Your task to perform on an android device: toggle javascript in the chrome app Image 0: 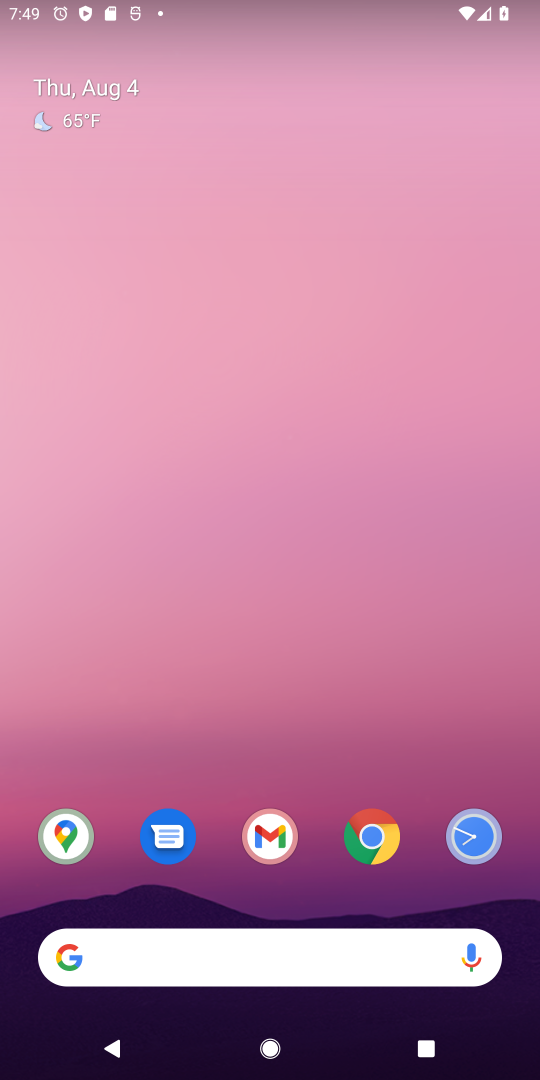
Step 0: click (380, 818)
Your task to perform on an android device: toggle javascript in the chrome app Image 1: 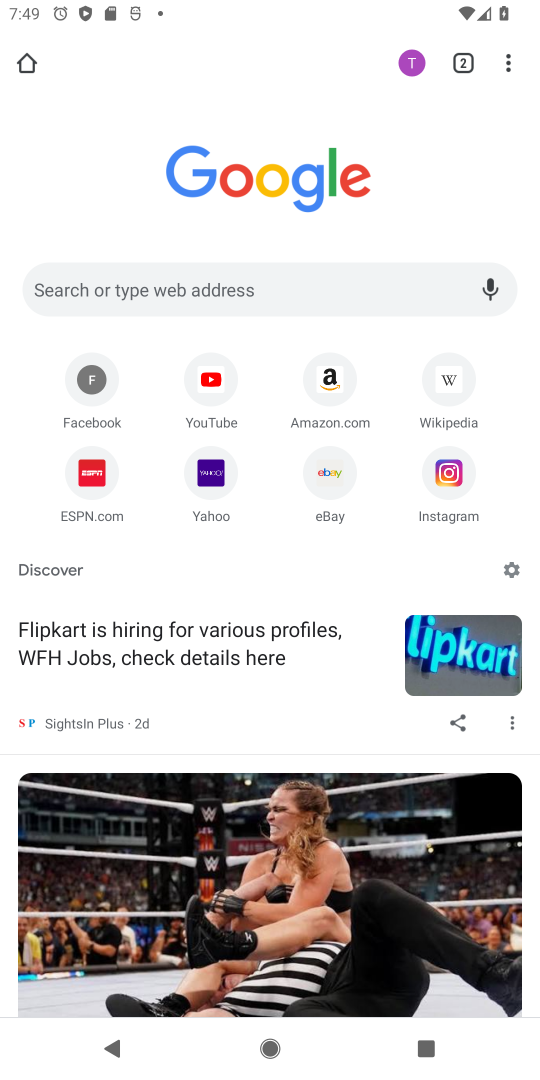
Step 1: drag from (511, 60) to (364, 599)
Your task to perform on an android device: toggle javascript in the chrome app Image 2: 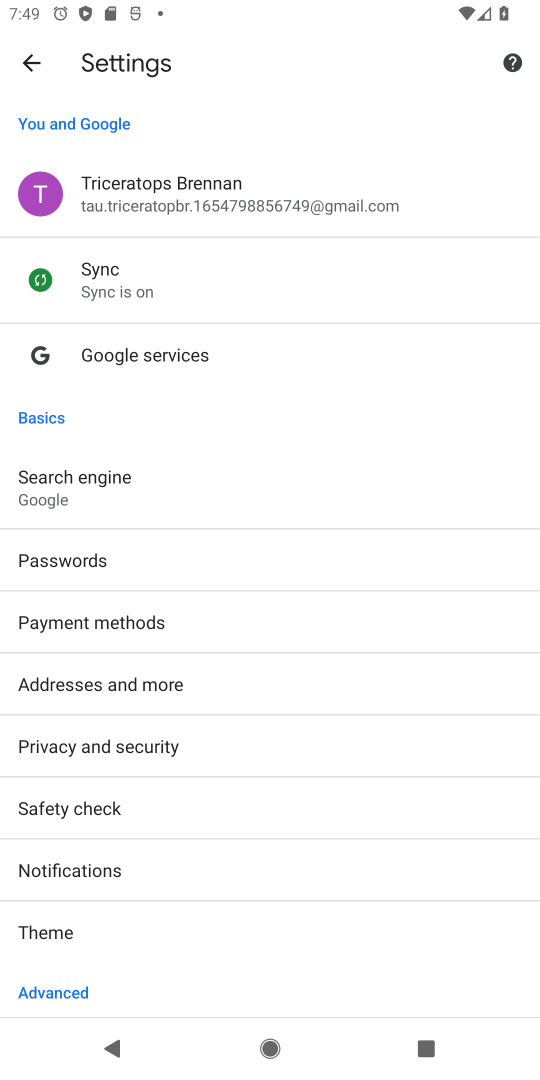
Step 2: drag from (251, 872) to (387, 149)
Your task to perform on an android device: toggle javascript in the chrome app Image 3: 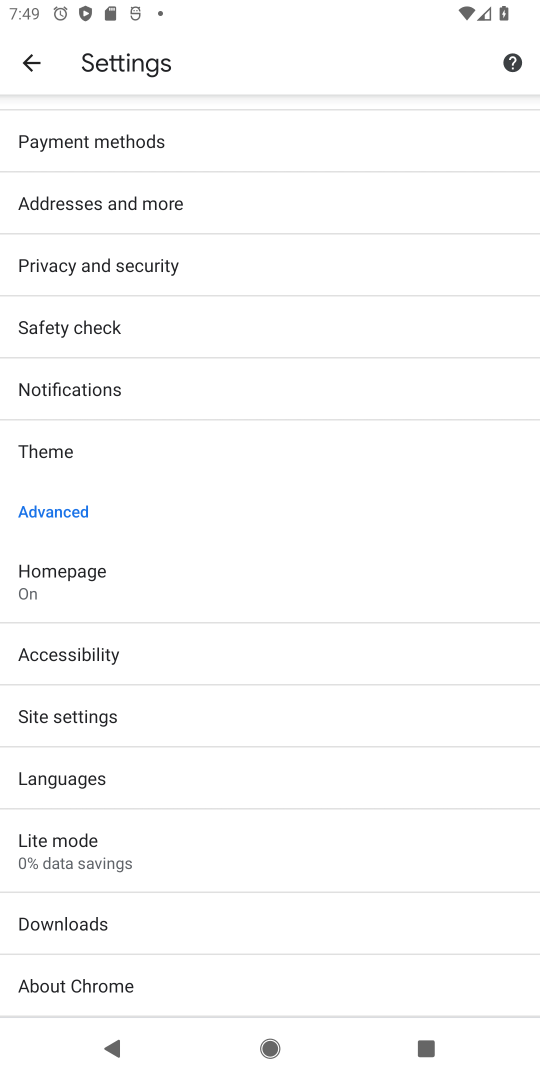
Step 3: click (100, 705)
Your task to perform on an android device: toggle javascript in the chrome app Image 4: 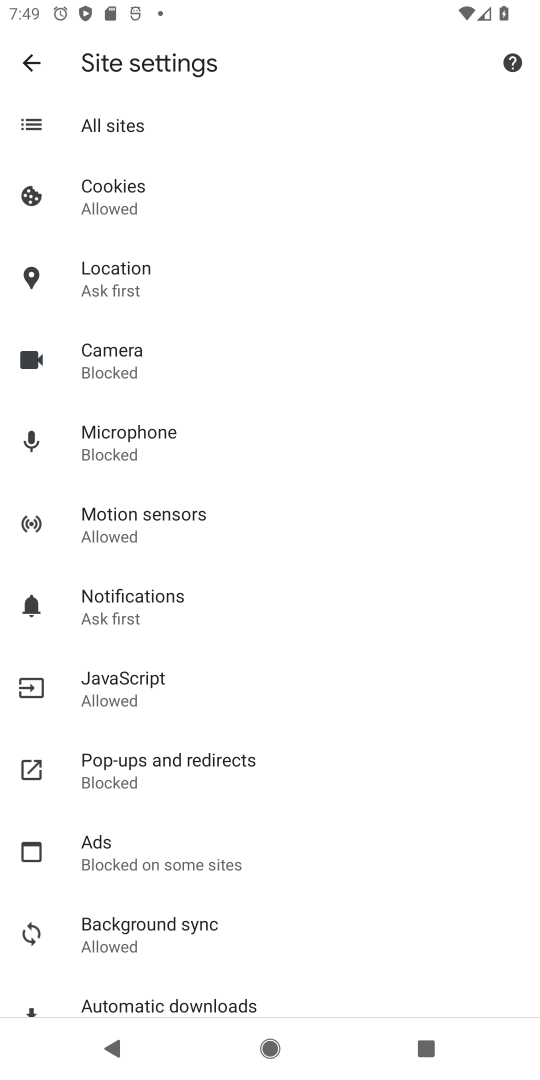
Step 4: click (112, 692)
Your task to perform on an android device: toggle javascript in the chrome app Image 5: 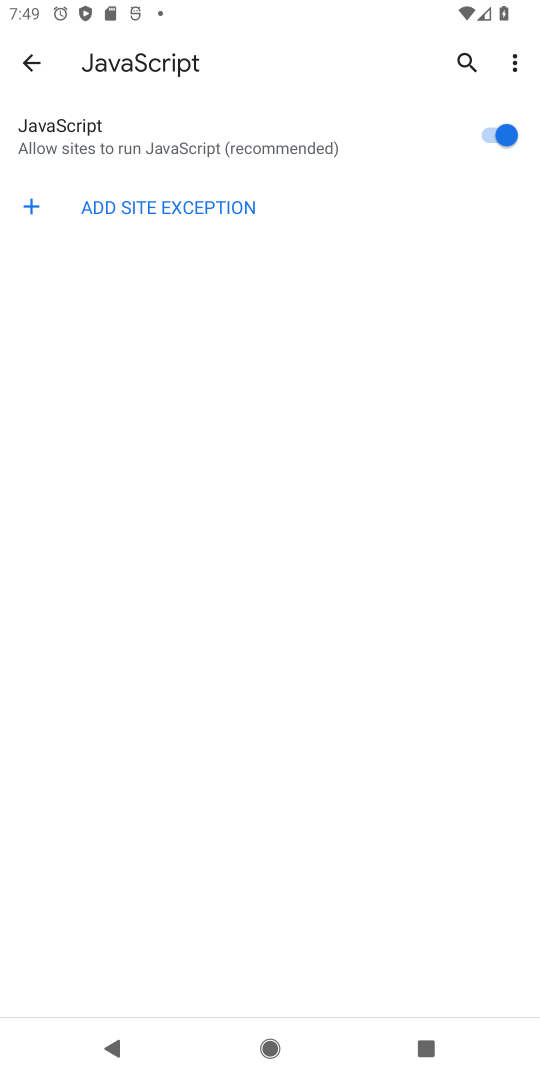
Step 5: click (506, 135)
Your task to perform on an android device: toggle javascript in the chrome app Image 6: 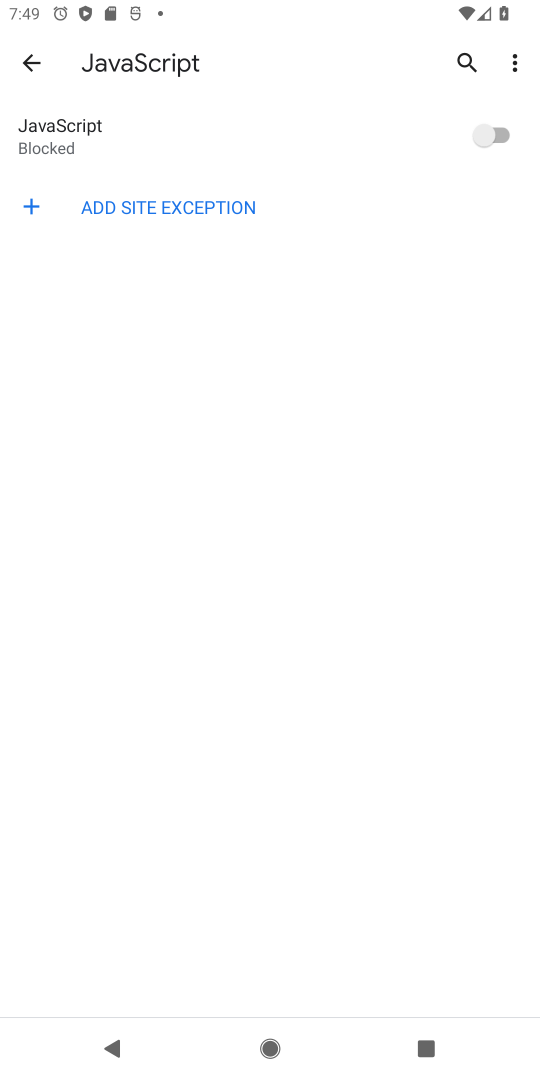
Step 6: task complete